Your task to perform on an android device: Do I have any events today? Image 0: 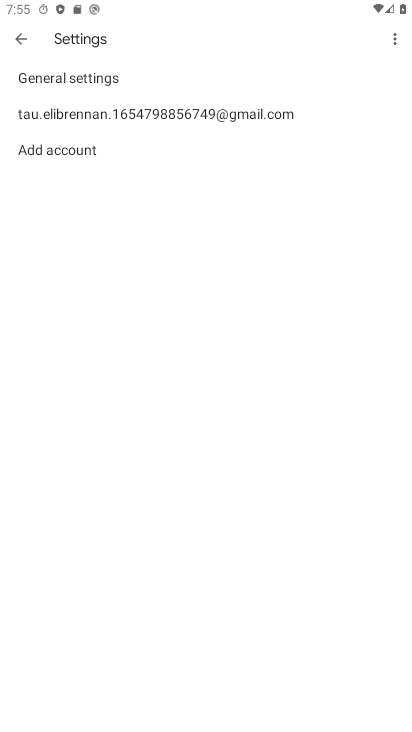
Step 0: press home button
Your task to perform on an android device: Do I have any events today? Image 1: 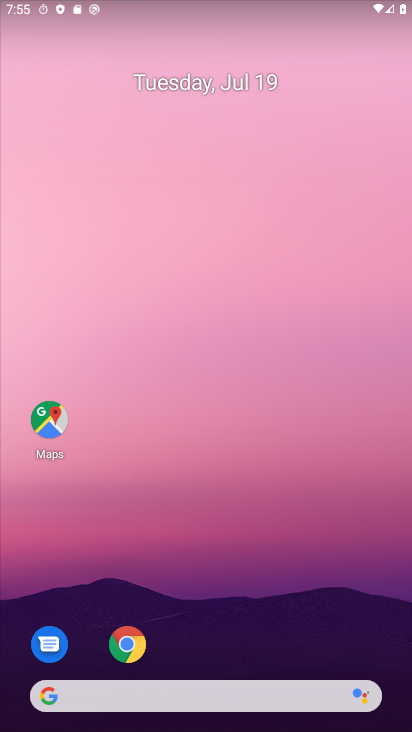
Step 1: drag from (26, 715) to (383, 30)
Your task to perform on an android device: Do I have any events today? Image 2: 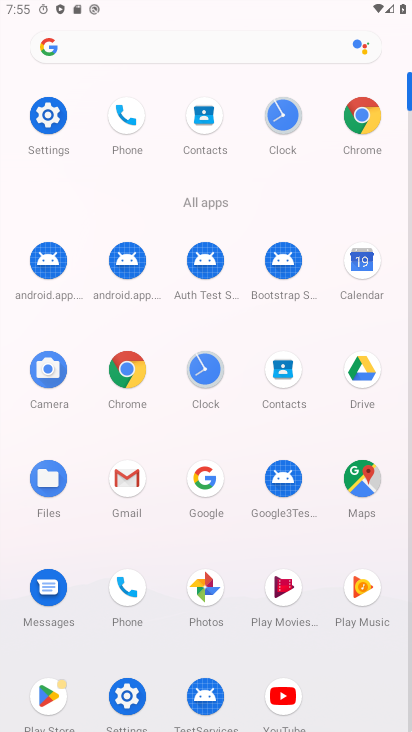
Step 2: click (360, 281)
Your task to perform on an android device: Do I have any events today? Image 3: 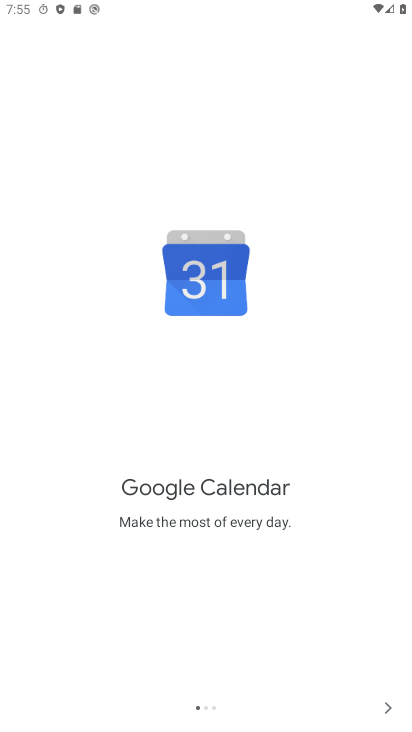
Step 3: click (385, 705)
Your task to perform on an android device: Do I have any events today? Image 4: 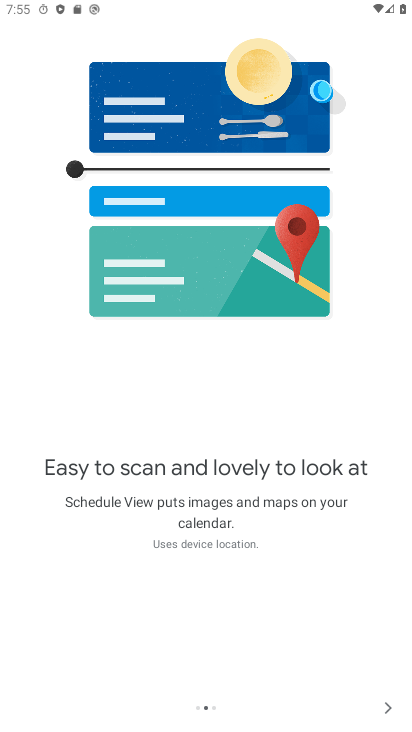
Step 4: click (387, 714)
Your task to perform on an android device: Do I have any events today? Image 5: 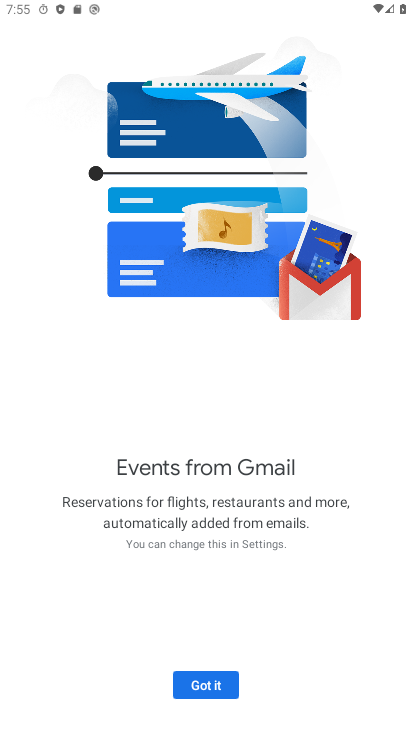
Step 5: click (212, 688)
Your task to perform on an android device: Do I have any events today? Image 6: 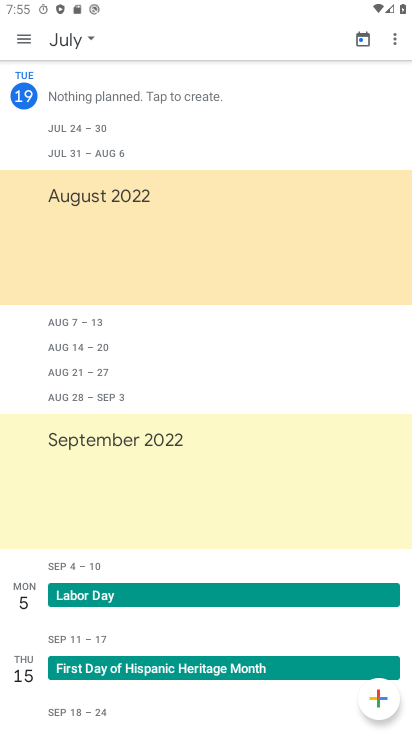
Step 6: click (84, 42)
Your task to perform on an android device: Do I have any events today? Image 7: 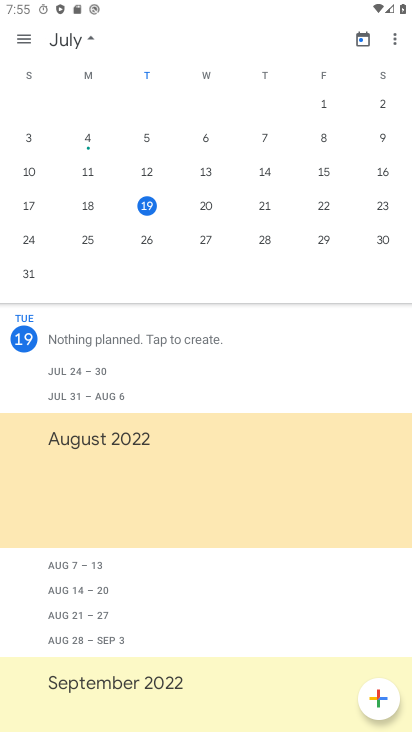
Step 7: task complete